Your task to perform on an android device: Show me popular videos on Youtube Image 0: 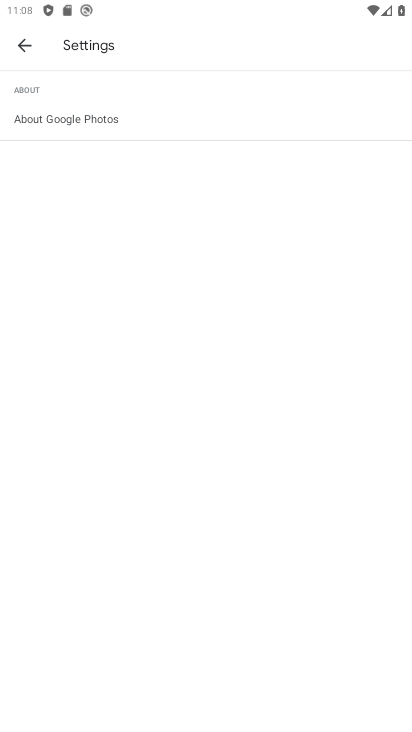
Step 0: press back button
Your task to perform on an android device: Show me popular videos on Youtube Image 1: 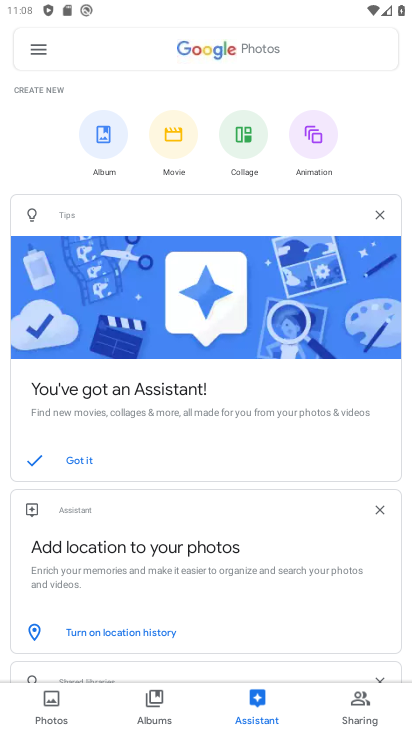
Step 1: press back button
Your task to perform on an android device: Show me popular videos on Youtube Image 2: 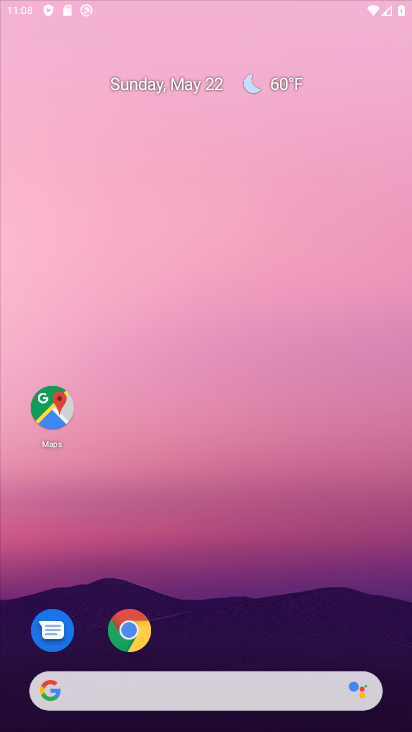
Step 2: press home button
Your task to perform on an android device: Show me popular videos on Youtube Image 3: 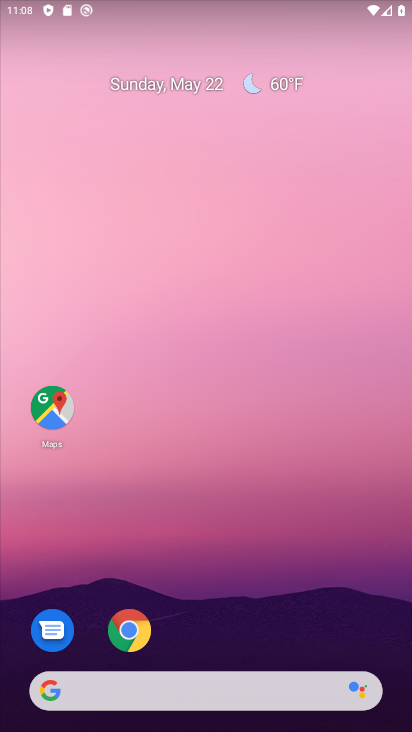
Step 3: drag from (213, 589) to (161, 114)
Your task to perform on an android device: Show me popular videos on Youtube Image 4: 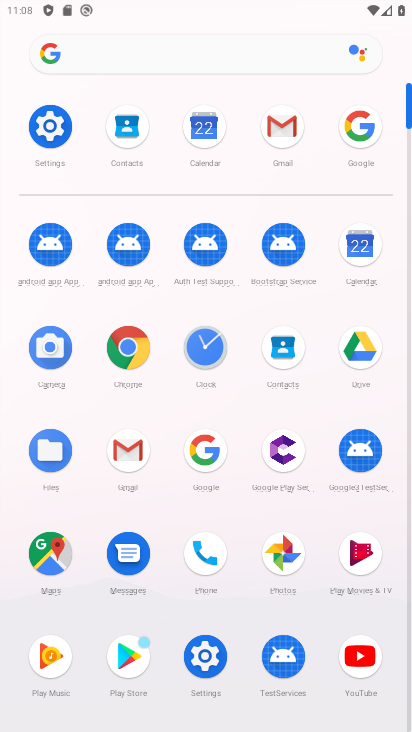
Step 4: click (361, 656)
Your task to perform on an android device: Show me popular videos on Youtube Image 5: 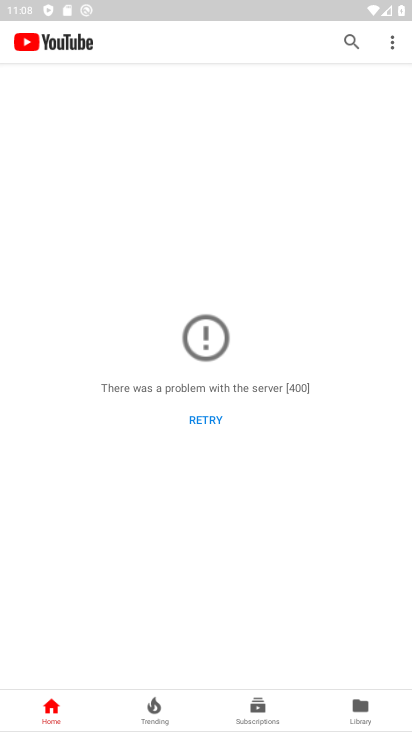
Step 5: click (352, 38)
Your task to perform on an android device: Show me popular videos on Youtube Image 6: 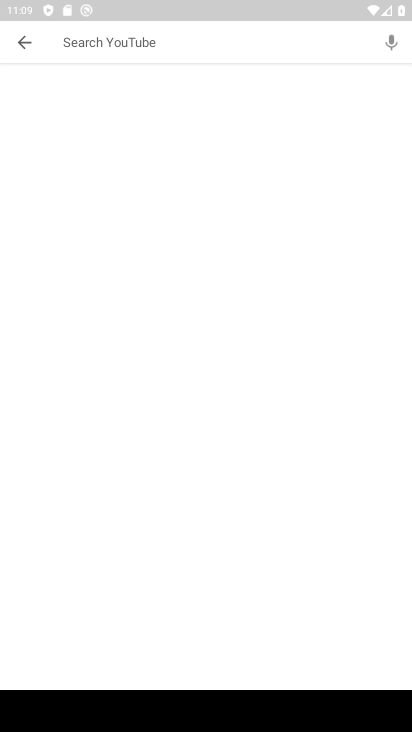
Step 6: type "popular videos"
Your task to perform on an android device: Show me popular videos on Youtube Image 7: 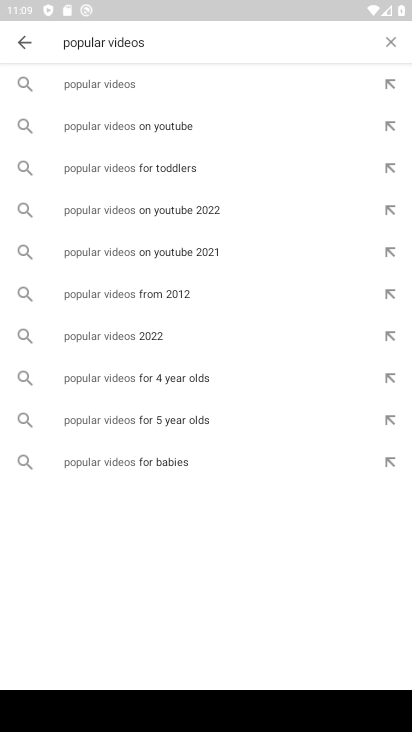
Step 7: click (146, 125)
Your task to perform on an android device: Show me popular videos on Youtube Image 8: 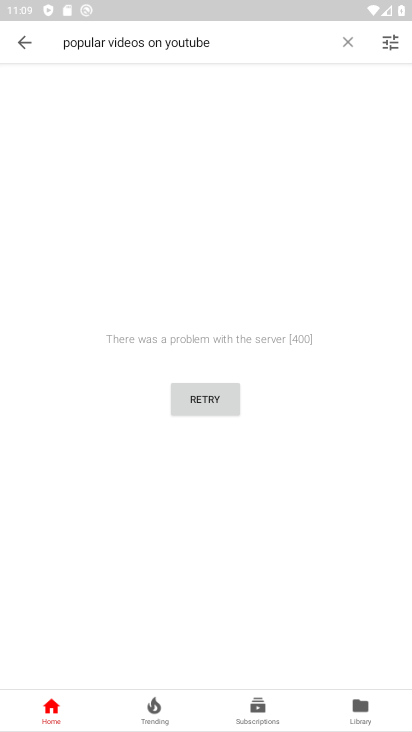
Step 8: click (201, 402)
Your task to perform on an android device: Show me popular videos on Youtube Image 9: 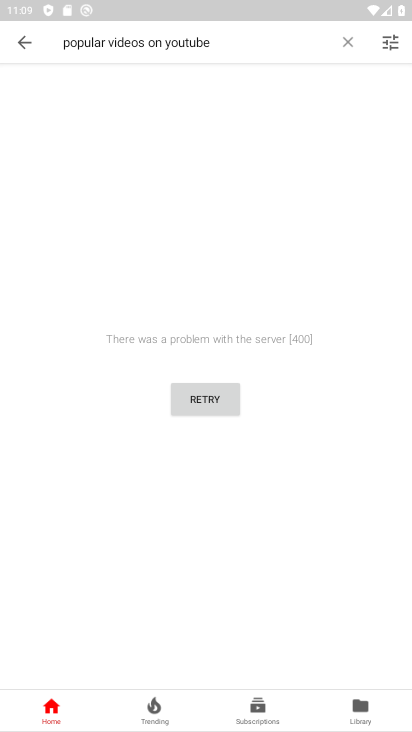
Step 9: click (201, 402)
Your task to perform on an android device: Show me popular videos on Youtube Image 10: 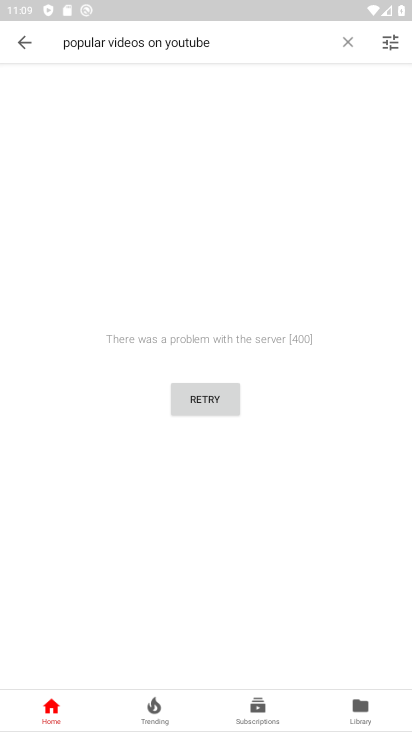
Step 10: click (201, 402)
Your task to perform on an android device: Show me popular videos on Youtube Image 11: 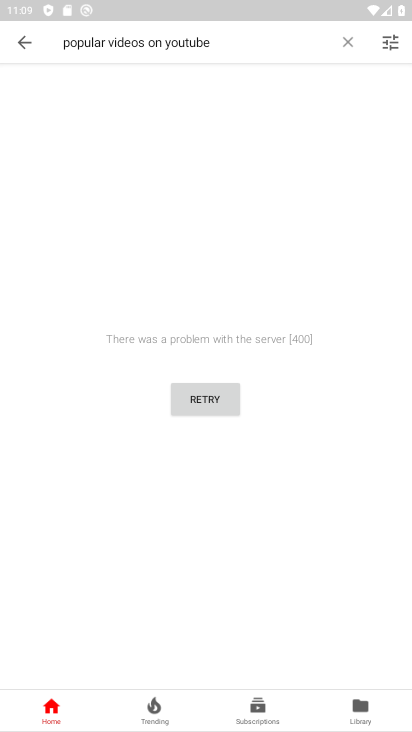
Step 11: task complete